Your task to perform on an android device: star an email in the gmail app Image 0: 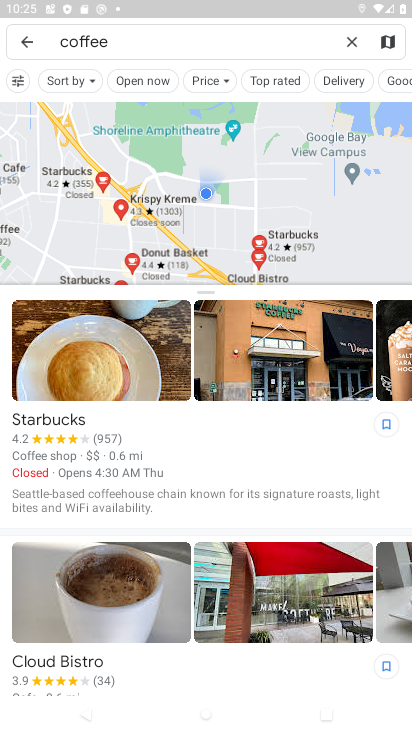
Step 0: press home button
Your task to perform on an android device: star an email in the gmail app Image 1: 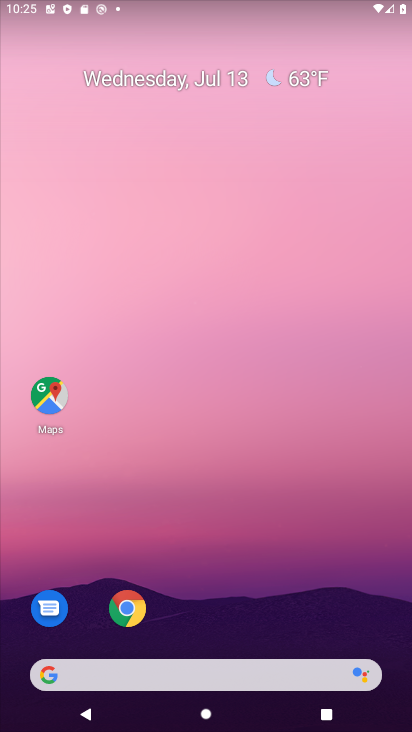
Step 1: drag from (121, 677) to (244, 136)
Your task to perform on an android device: star an email in the gmail app Image 2: 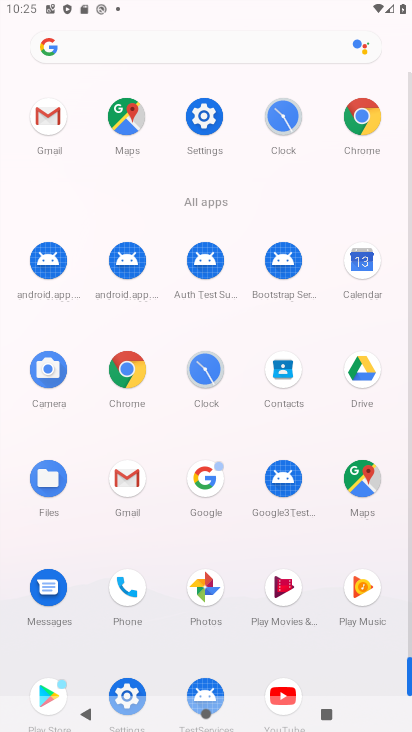
Step 2: click (117, 470)
Your task to perform on an android device: star an email in the gmail app Image 3: 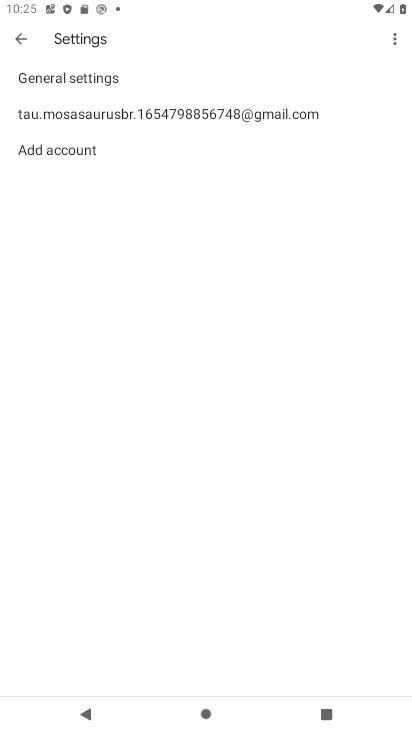
Step 3: press back button
Your task to perform on an android device: star an email in the gmail app Image 4: 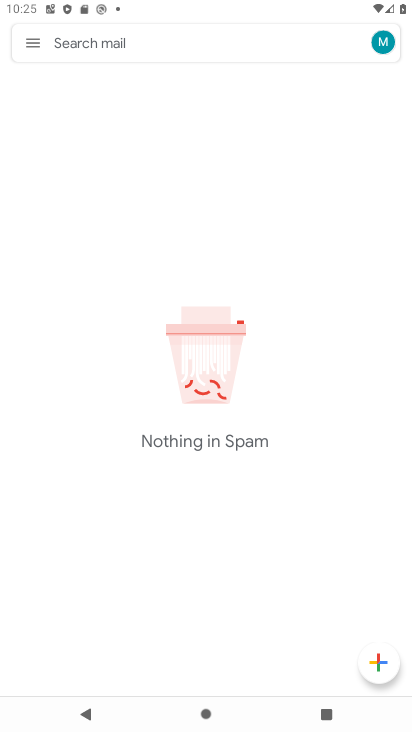
Step 4: click (30, 40)
Your task to perform on an android device: star an email in the gmail app Image 5: 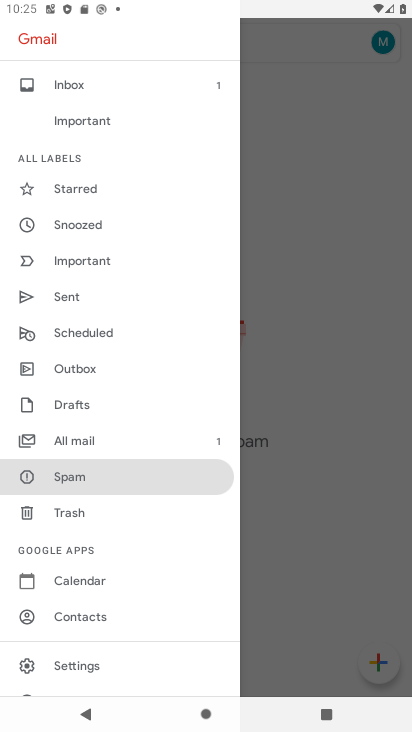
Step 5: click (101, 427)
Your task to perform on an android device: star an email in the gmail app Image 6: 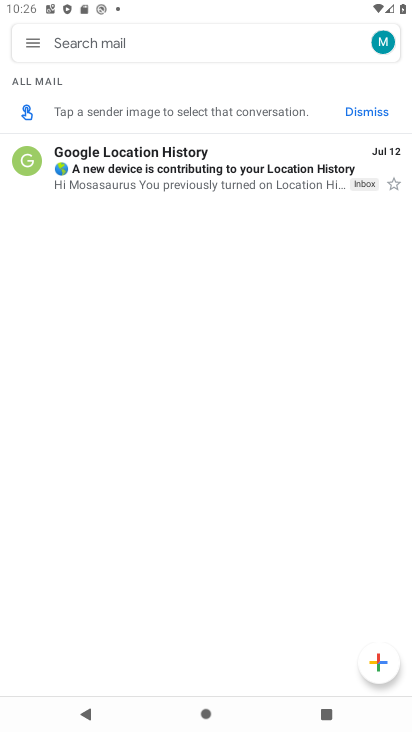
Step 6: click (388, 181)
Your task to perform on an android device: star an email in the gmail app Image 7: 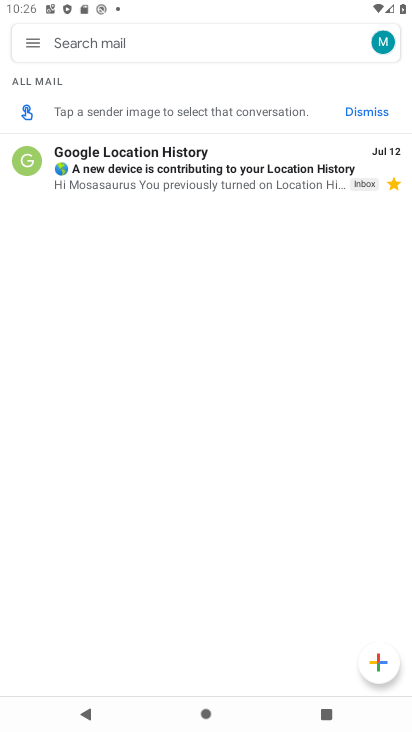
Step 7: task complete